Your task to perform on an android device: move a message to another label in the gmail app Image 0: 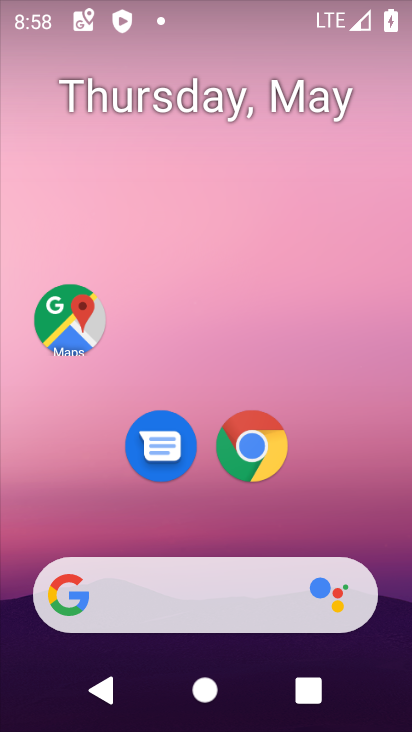
Step 0: drag from (398, 619) to (361, 194)
Your task to perform on an android device: move a message to another label in the gmail app Image 1: 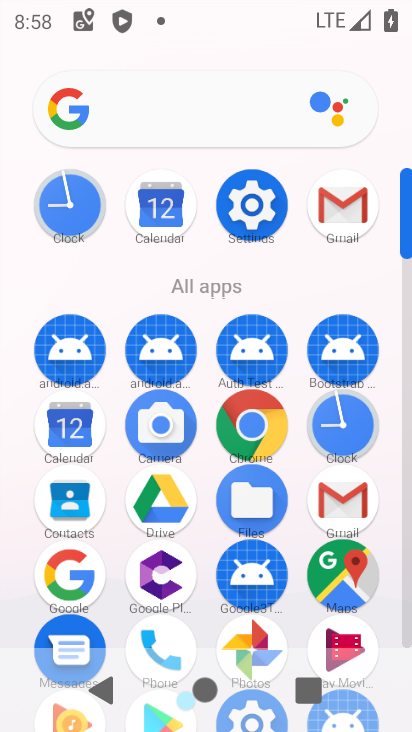
Step 1: click (408, 623)
Your task to perform on an android device: move a message to another label in the gmail app Image 2: 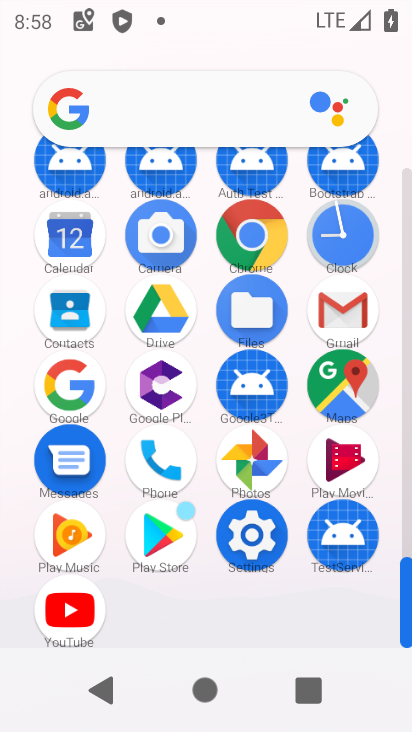
Step 2: click (344, 305)
Your task to perform on an android device: move a message to another label in the gmail app Image 3: 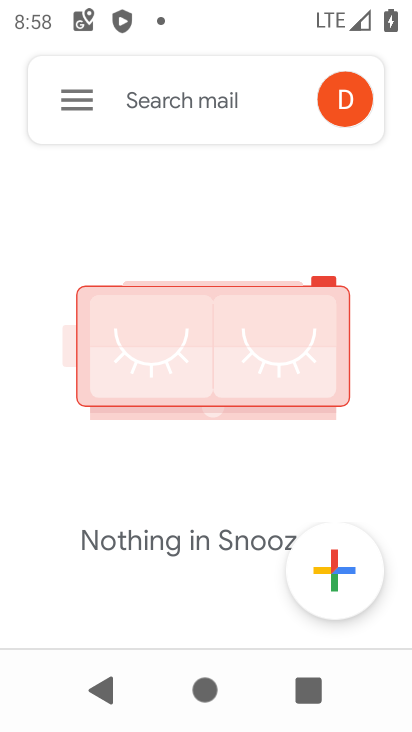
Step 3: click (71, 102)
Your task to perform on an android device: move a message to another label in the gmail app Image 4: 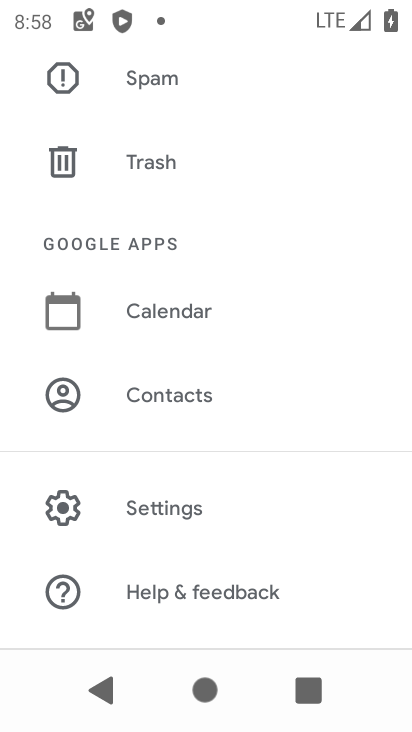
Step 4: drag from (141, 112) to (243, 438)
Your task to perform on an android device: move a message to another label in the gmail app Image 5: 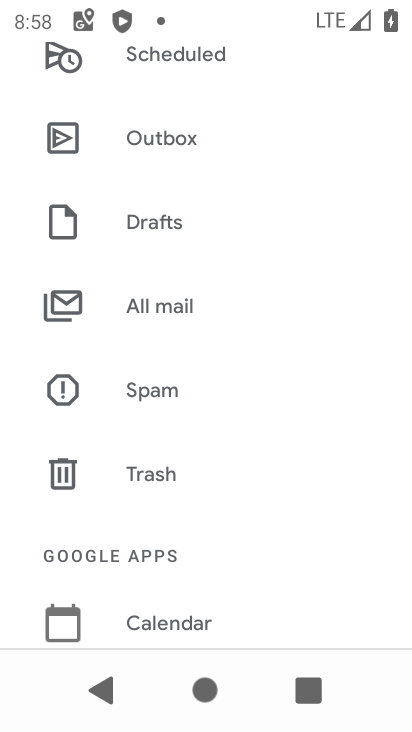
Step 5: click (143, 304)
Your task to perform on an android device: move a message to another label in the gmail app Image 6: 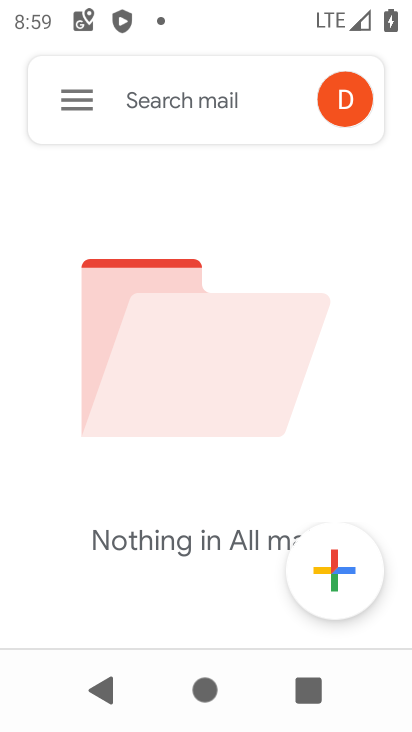
Step 6: task complete